Your task to perform on an android device: Open privacy settings Image 0: 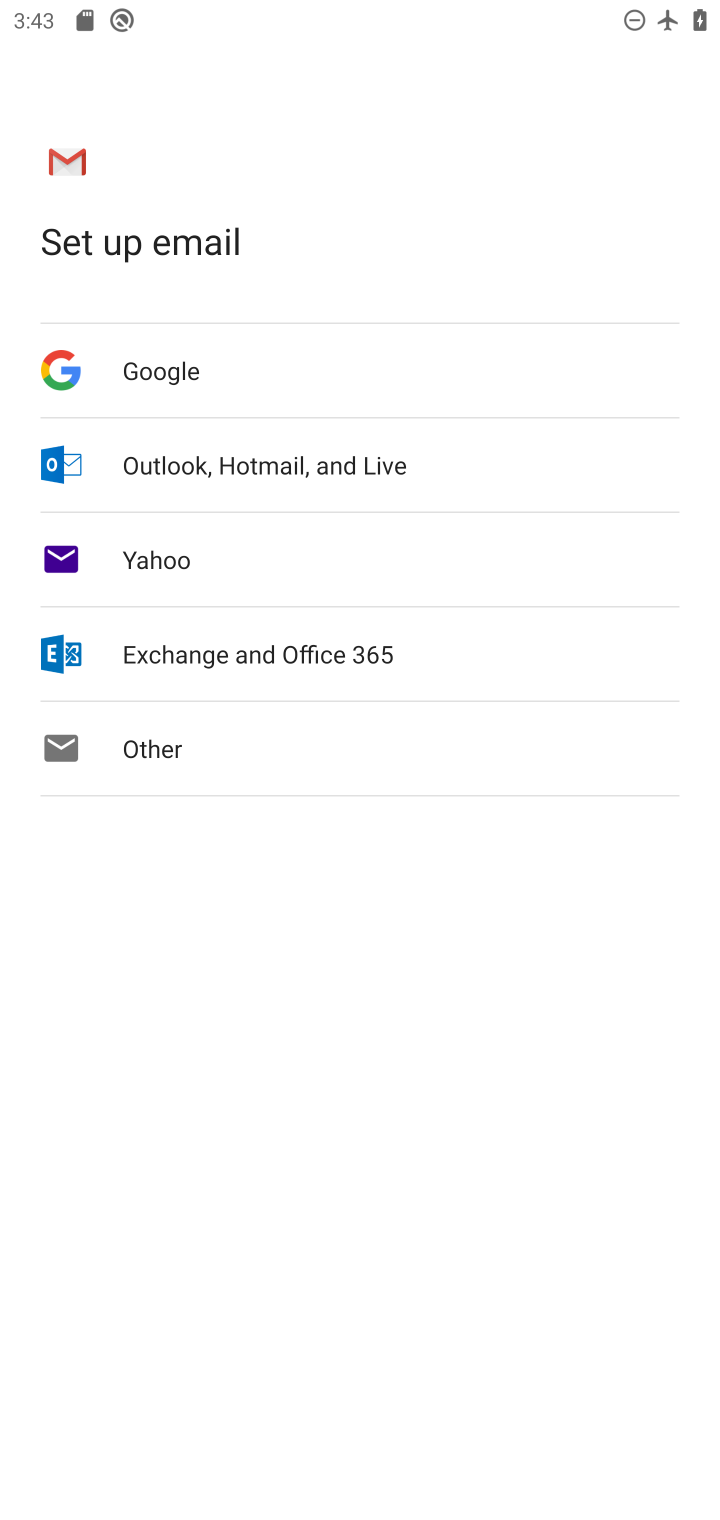
Step 0: press home button
Your task to perform on an android device: Open privacy settings Image 1: 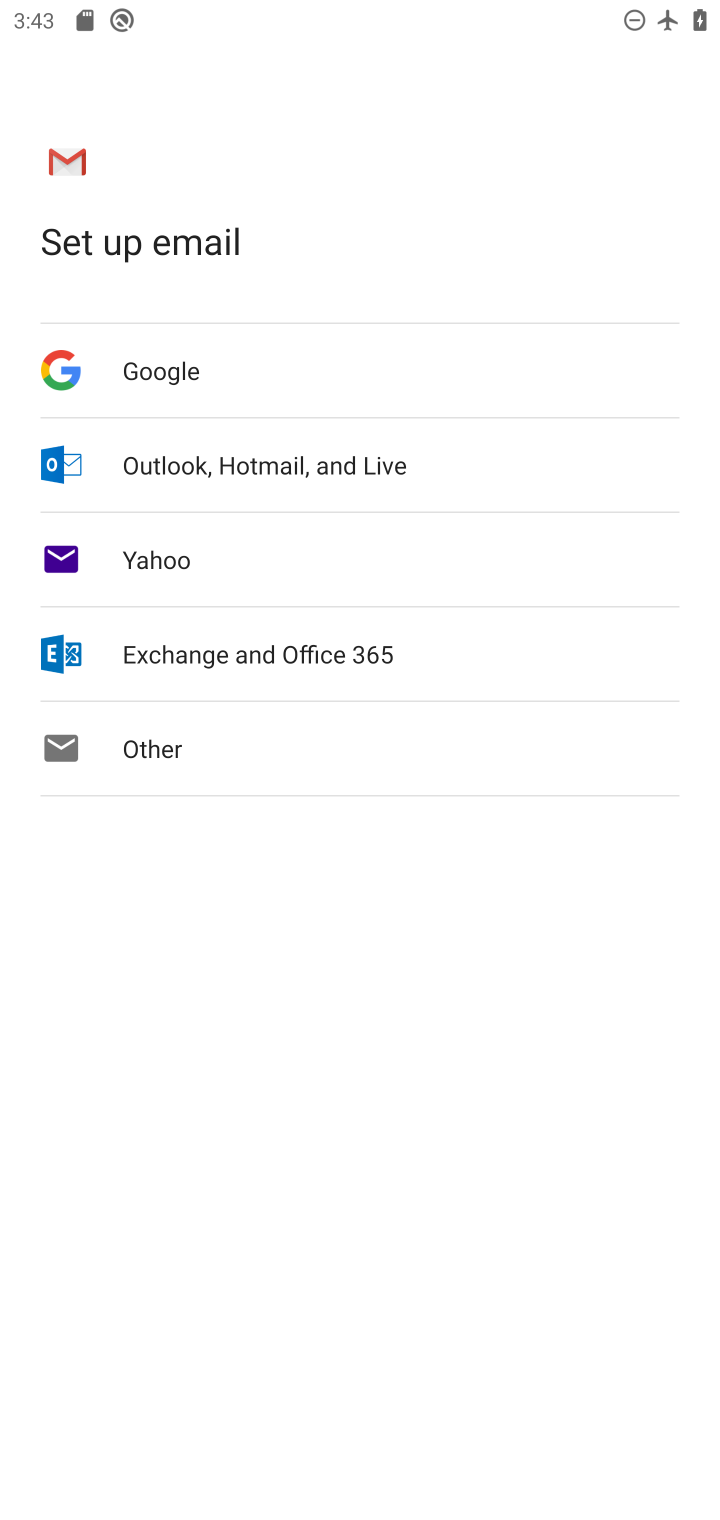
Step 1: press home button
Your task to perform on an android device: Open privacy settings Image 2: 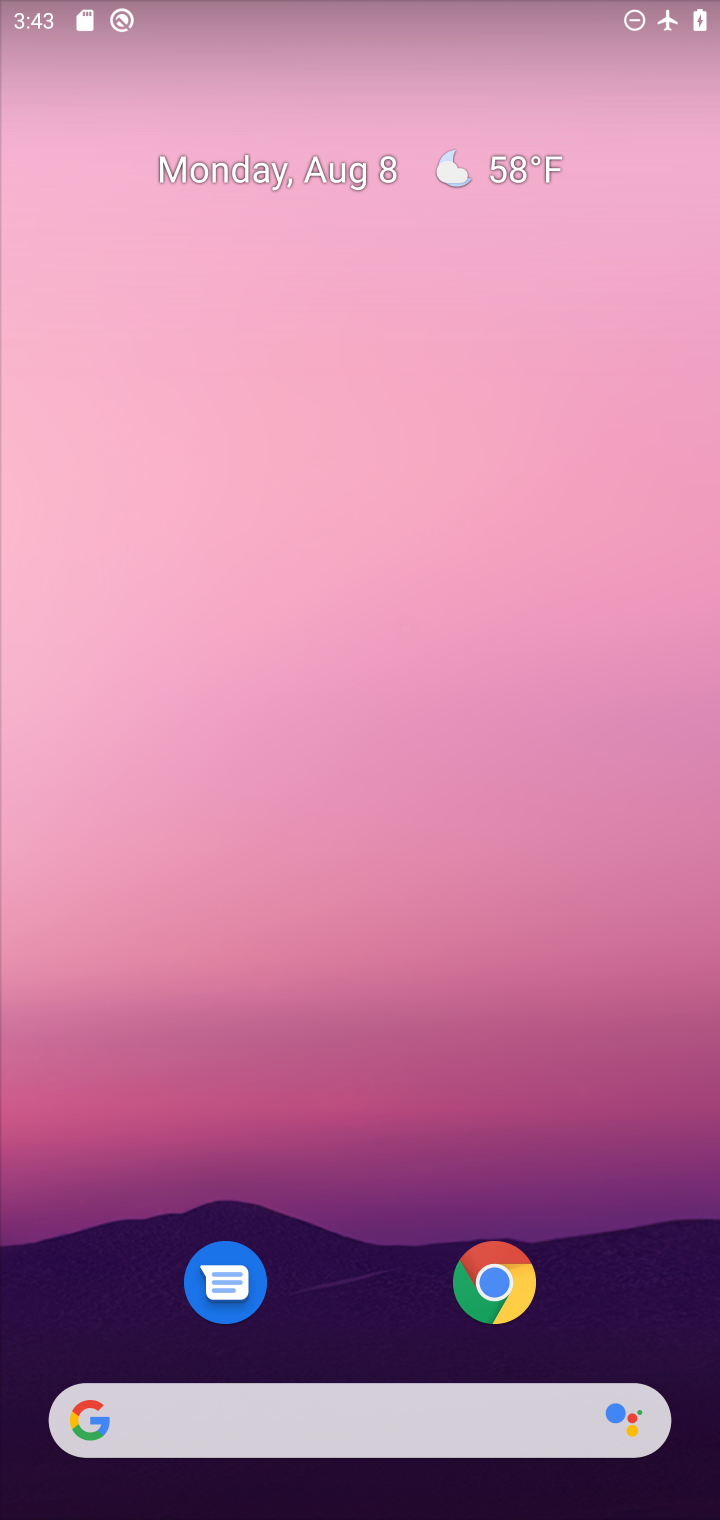
Step 2: drag from (321, 1168) to (418, 216)
Your task to perform on an android device: Open privacy settings Image 3: 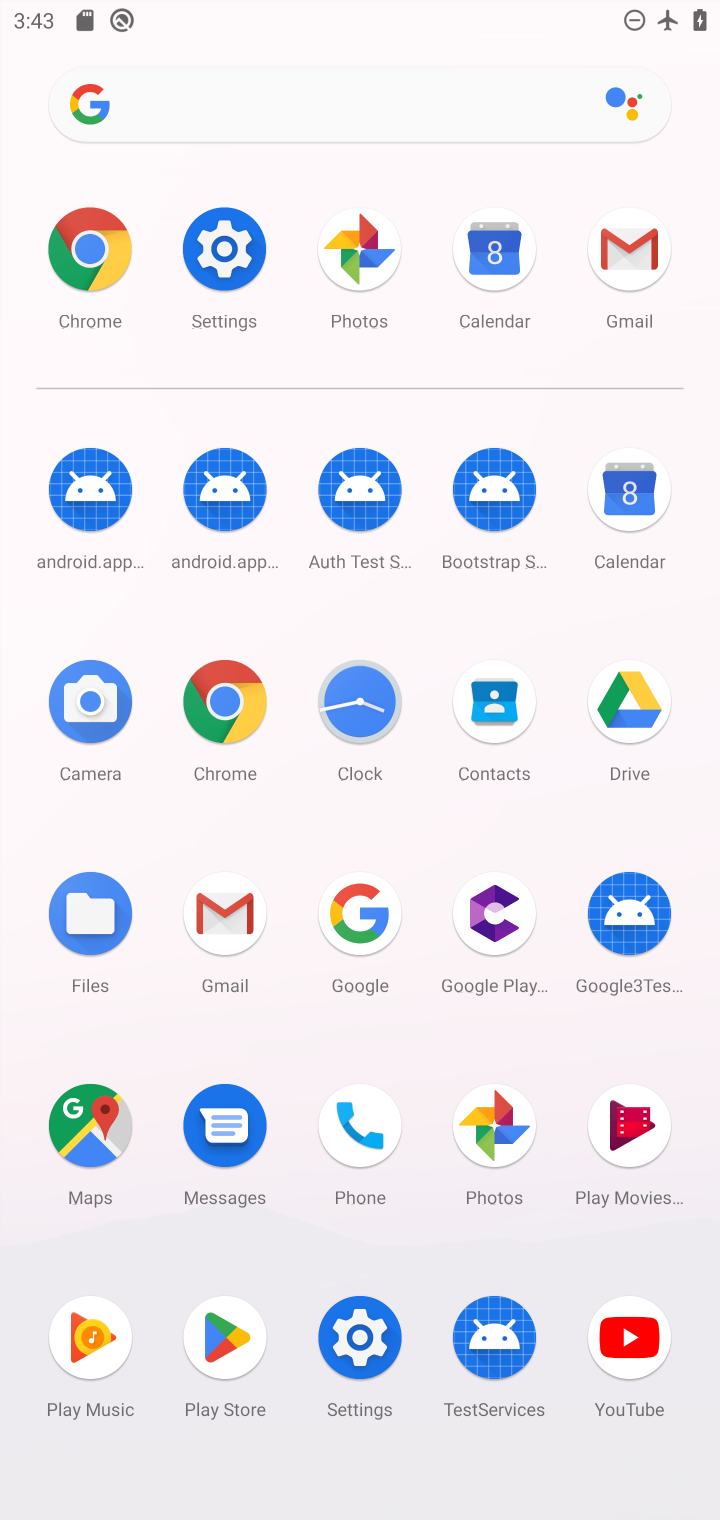
Step 3: click (357, 1344)
Your task to perform on an android device: Open privacy settings Image 4: 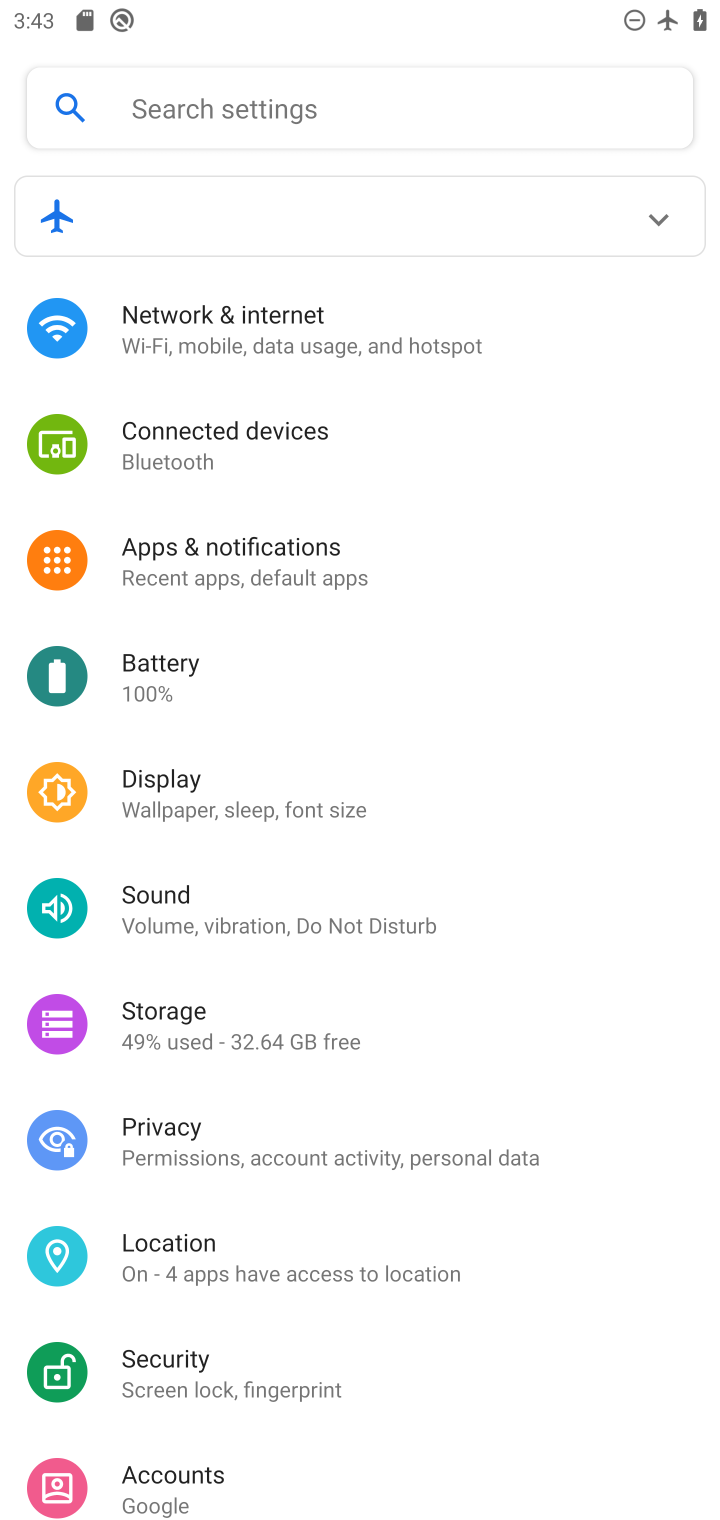
Step 4: drag from (474, 1210) to (636, 290)
Your task to perform on an android device: Open privacy settings Image 5: 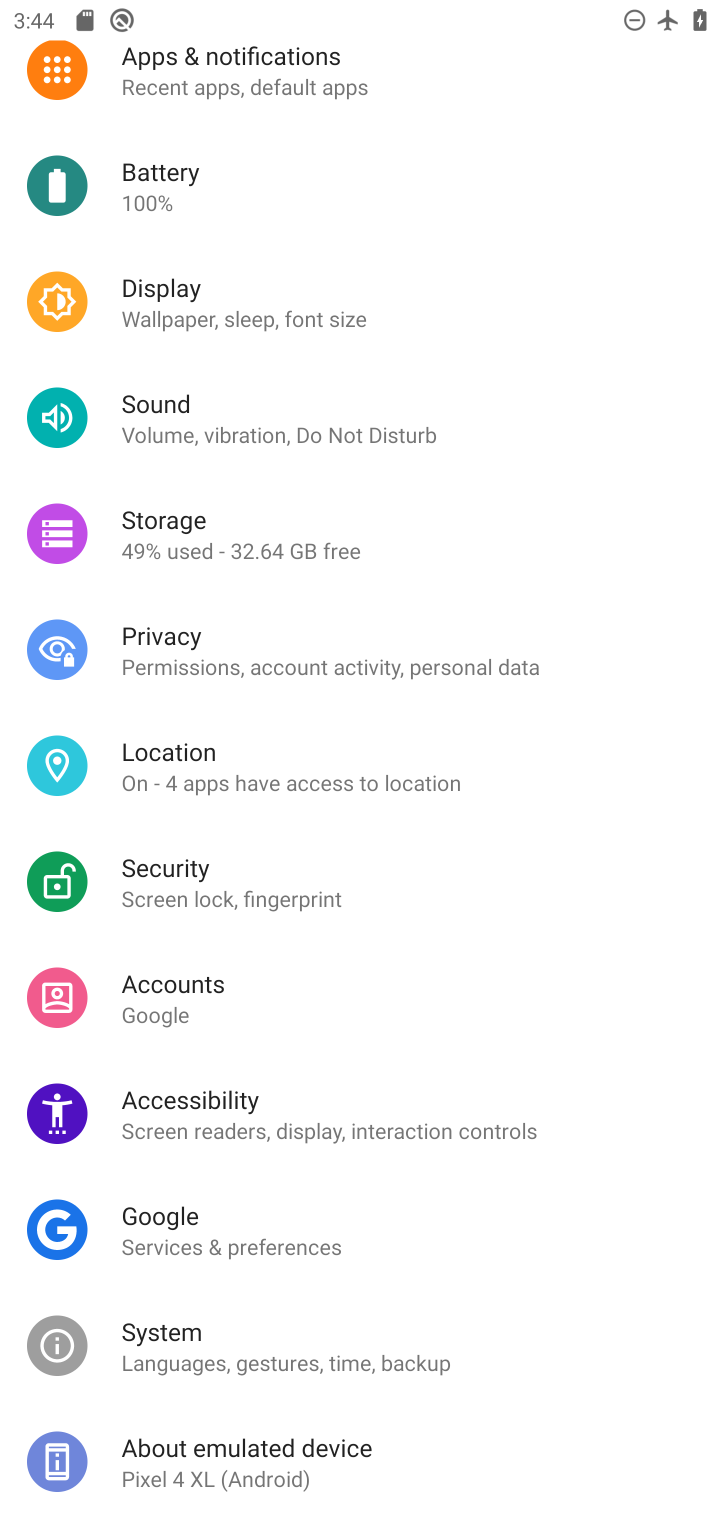
Step 5: drag from (530, 1366) to (594, 399)
Your task to perform on an android device: Open privacy settings Image 6: 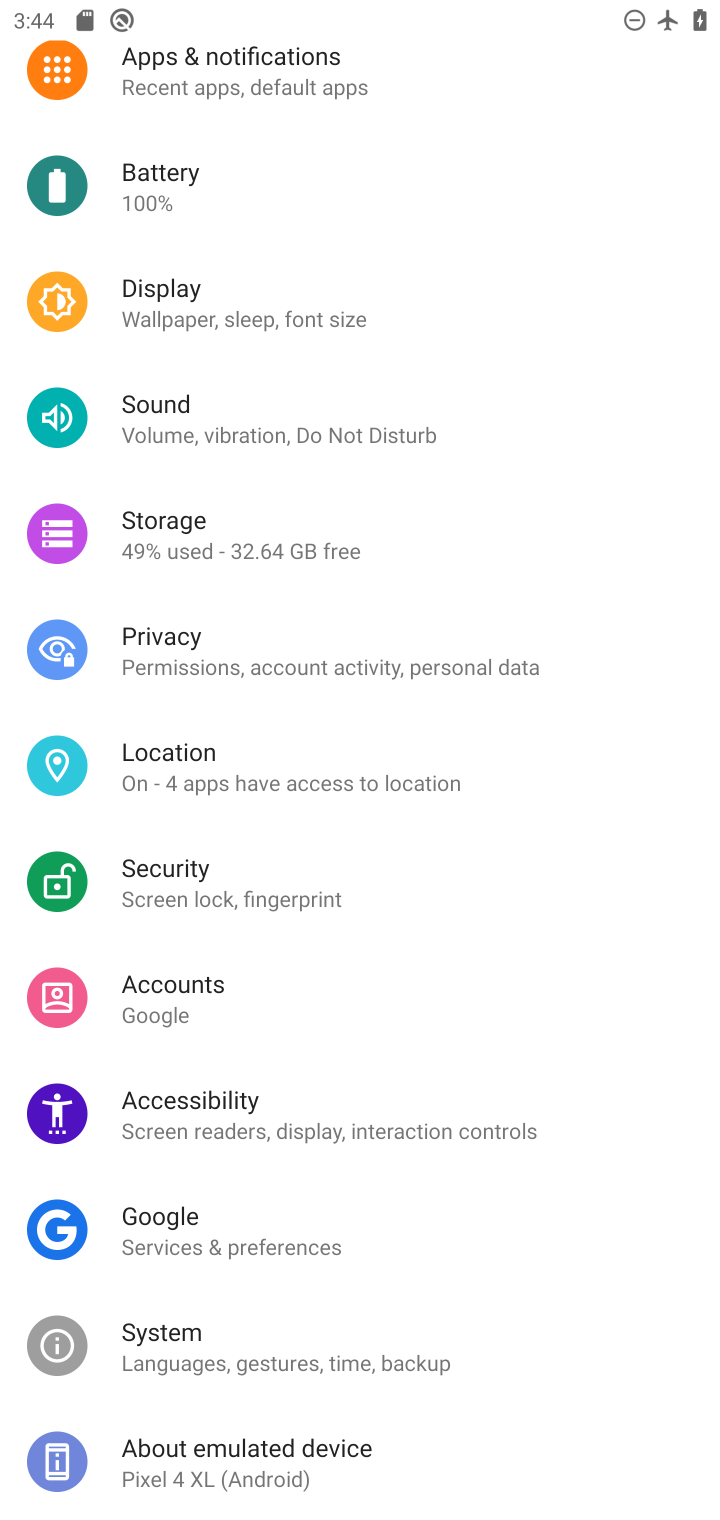
Step 6: click (298, 647)
Your task to perform on an android device: Open privacy settings Image 7: 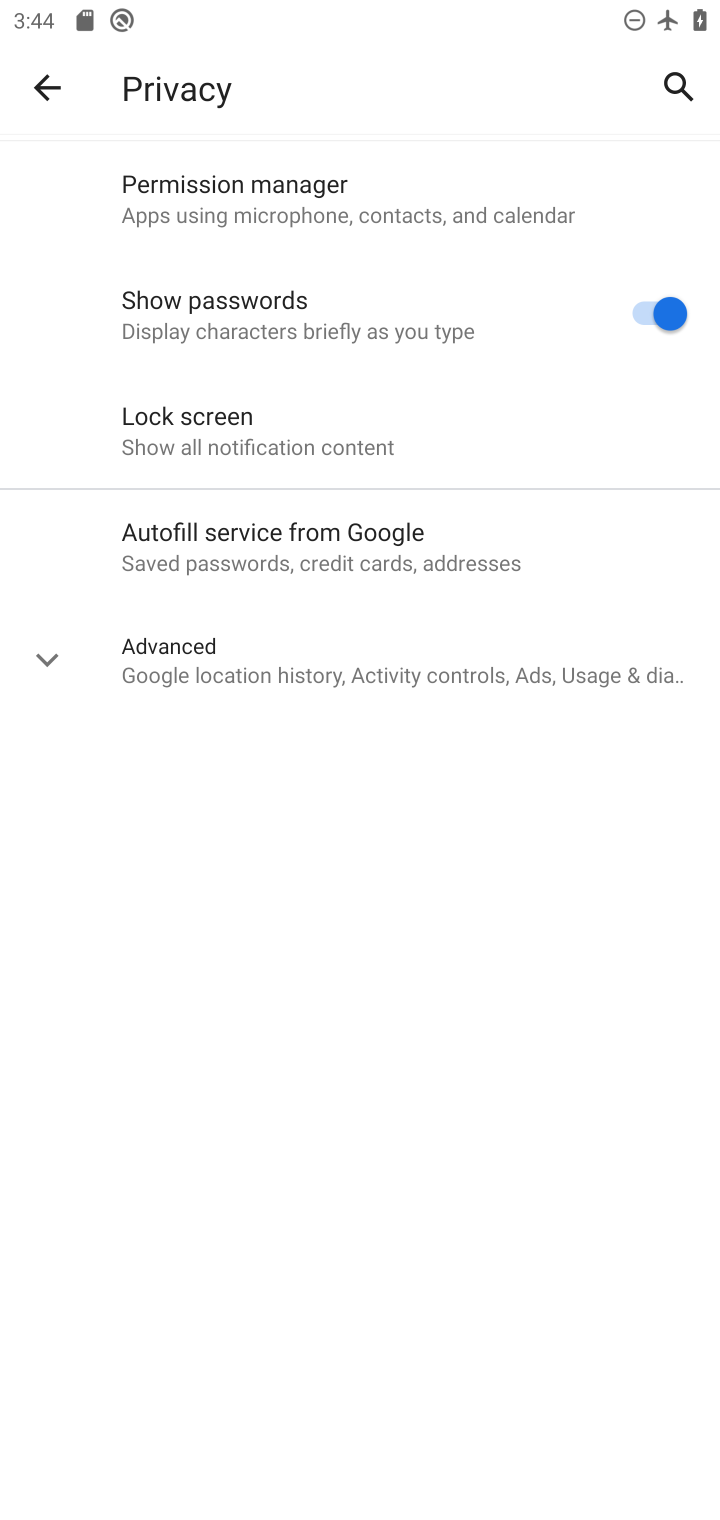
Step 7: task complete